Your task to perform on an android device: check out phone information Image 0: 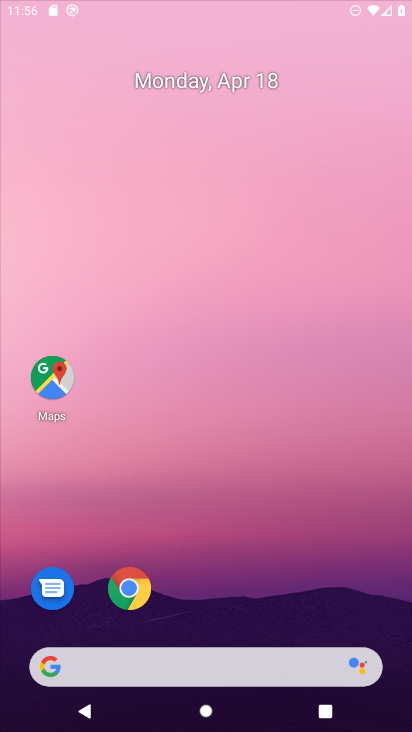
Step 0: click (133, 37)
Your task to perform on an android device: check out phone information Image 1: 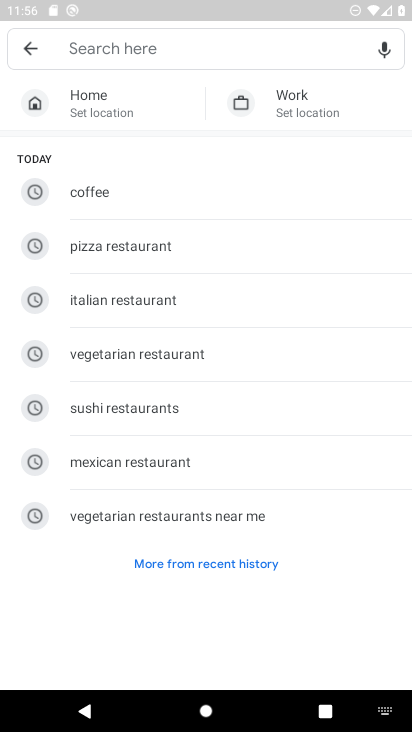
Step 1: press back button
Your task to perform on an android device: check out phone information Image 2: 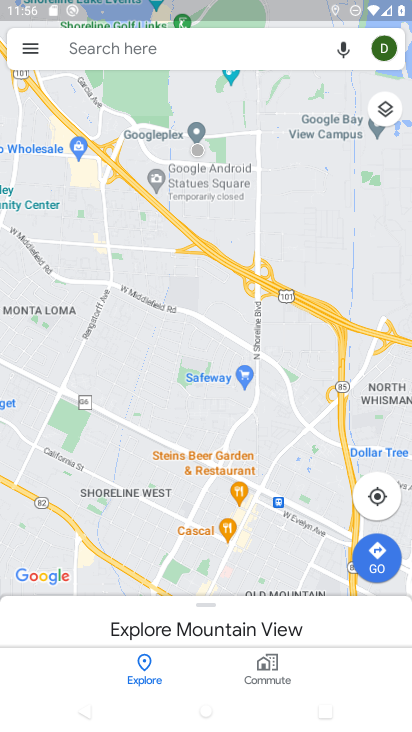
Step 2: press back button
Your task to perform on an android device: check out phone information Image 3: 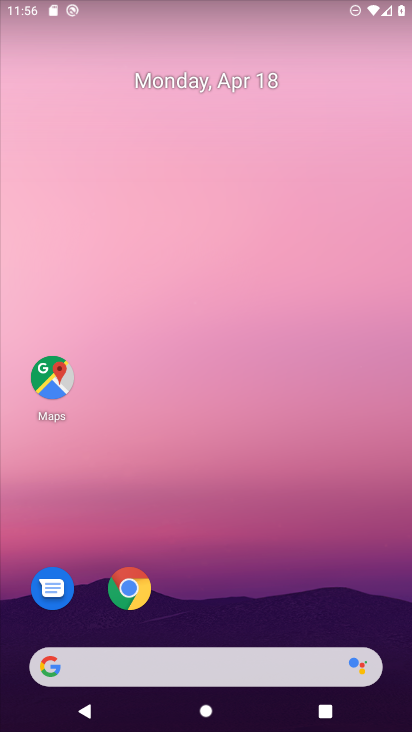
Step 3: drag from (333, 589) to (297, 56)
Your task to perform on an android device: check out phone information Image 4: 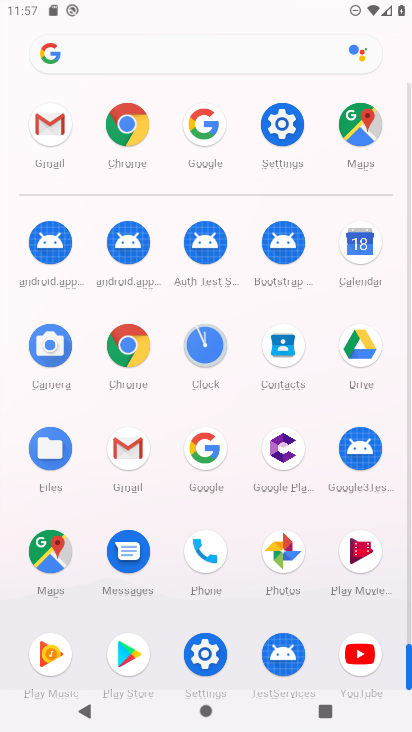
Step 4: click (202, 654)
Your task to perform on an android device: check out phone information Image 5: 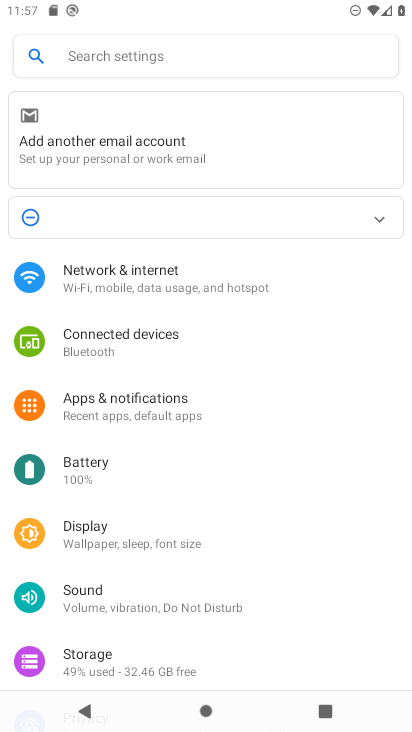
Step 5: drag from (268, 588) to (284, 152)
Your task to perform on an android device: check out phone information Image 6: 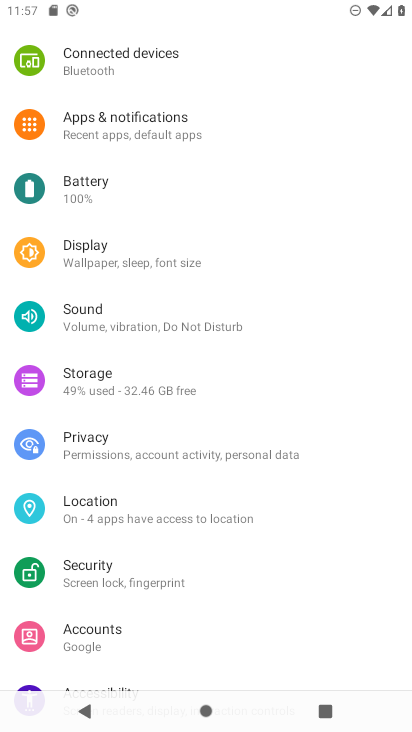
Step 6: drag from (239, 510) to (258, 142)
Your task to perform on an android device: check out phone information Image 7: 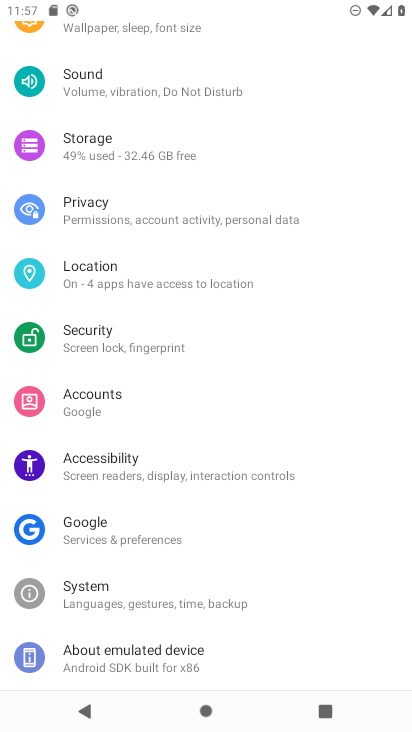
Step 7: click (192, 644)
Your task to perform on an android device: check out phone information Image 8: 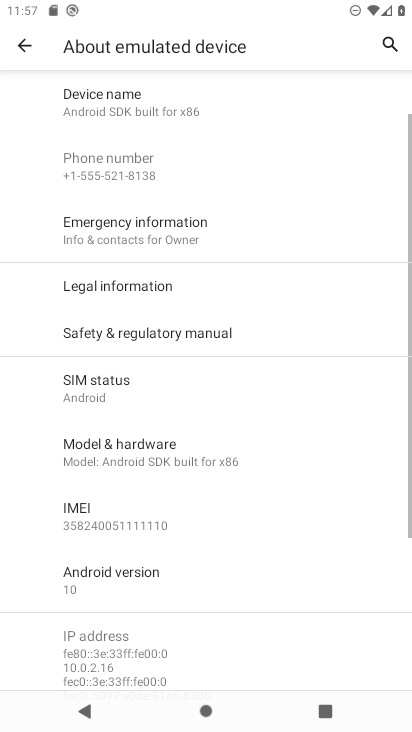
Step 8: task complete